Your task to perform on an android device: turn on notifications settings in the gmail app Image 0: 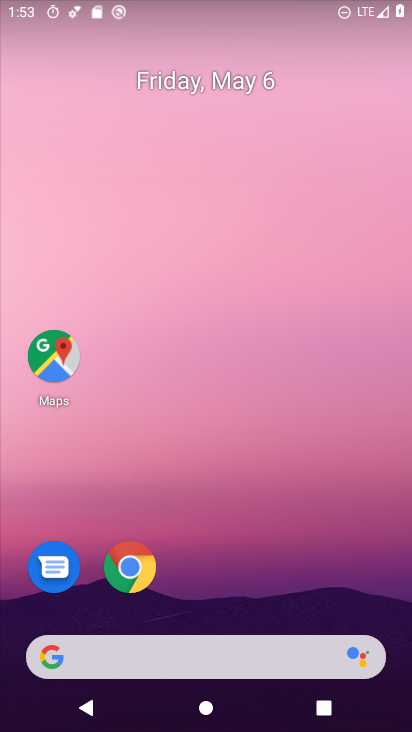
Step 0: drag from (306, 659) to (307, 223)
Your task to perform on an android device: turn on notifications settings in the gmail app Image 1: 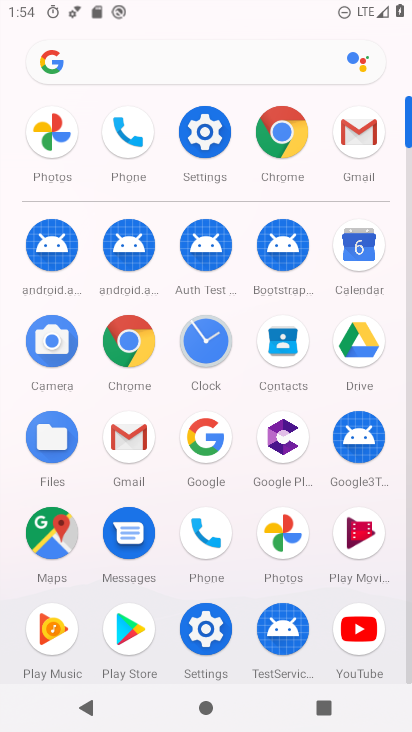
Step 1: click (139, 431)
Your task to perform on an android device: turn on notifications settings in the gmail app Image 2: 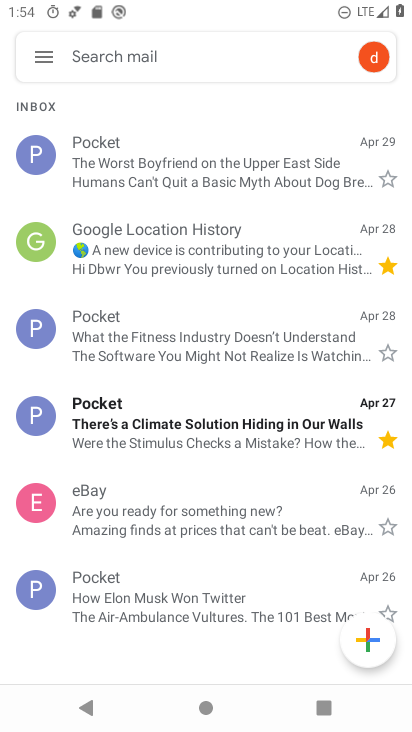
Step 2: click (36, 59)
Your task to perform on an android device: turn on notifications settings in the gmail app Image 3: 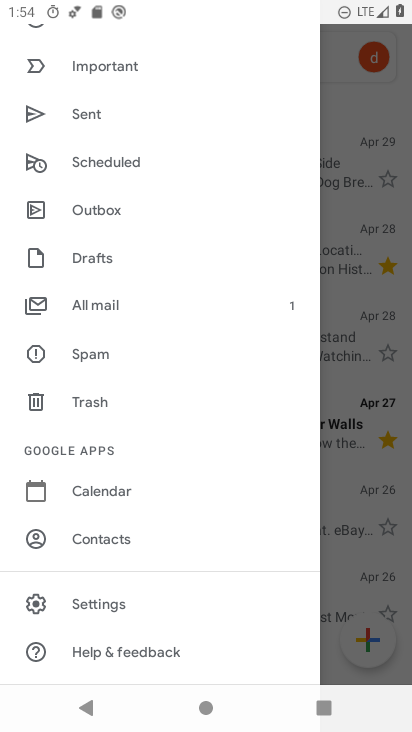
Step 3: click (107, 604)
Your task to perform on an android device: turn on notifications settings in the gmail app Image 4: 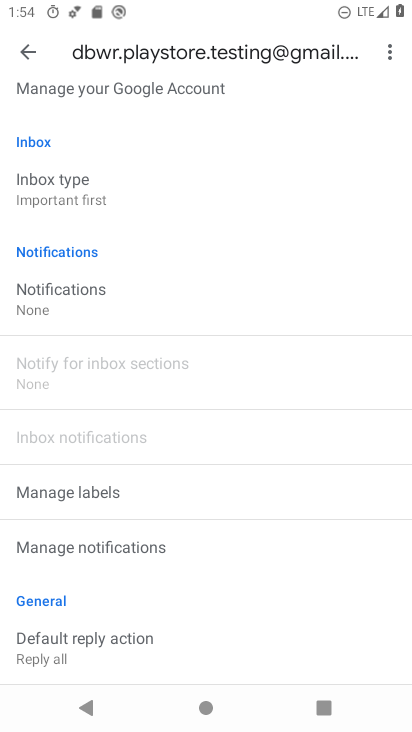
Step 4: click (108, 297)
Your task to perform on an android device: turn on notifications settings in the gmail app Image 5: 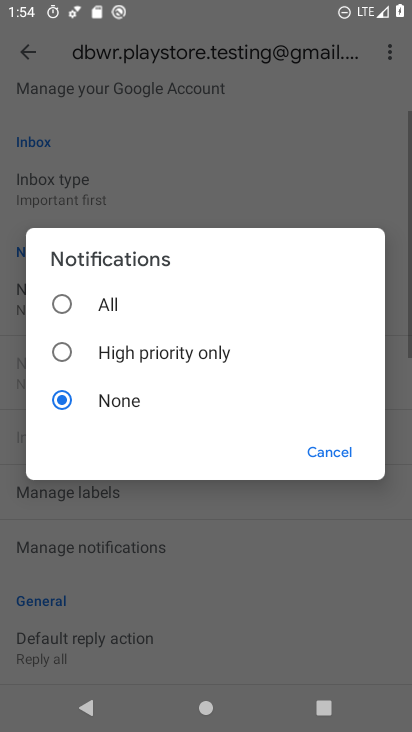
Step 5: click (111, 298)
Your task to perform on an android device: turn on notifications settings in the gmail app Image 6: 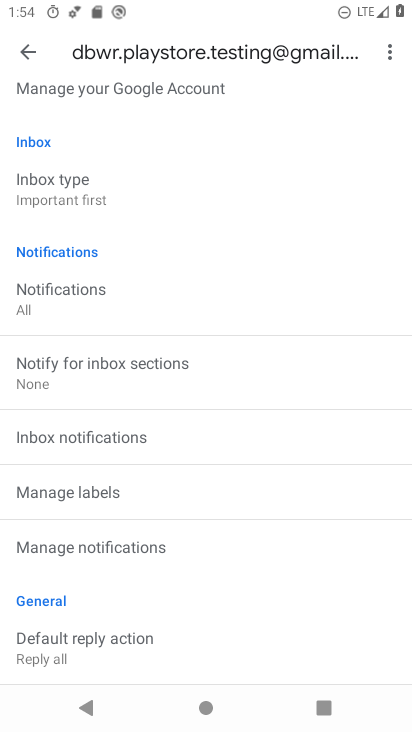
Step 6: task complete